Your task to perform on an android device: turn on wifi Image 0: 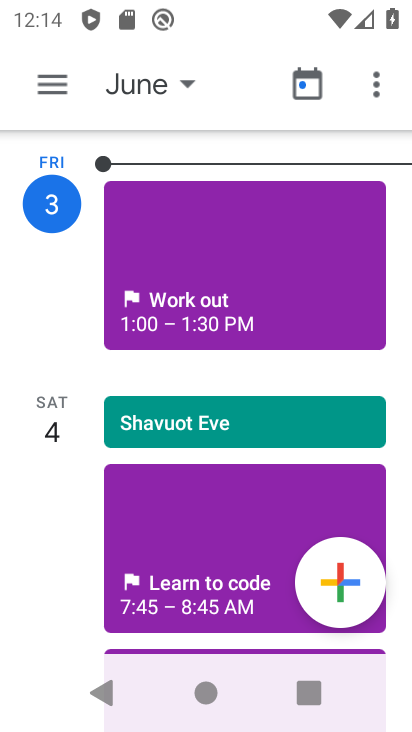
Step 0: press home button
Your task to perform on an android device: turn on wifi Image 1: 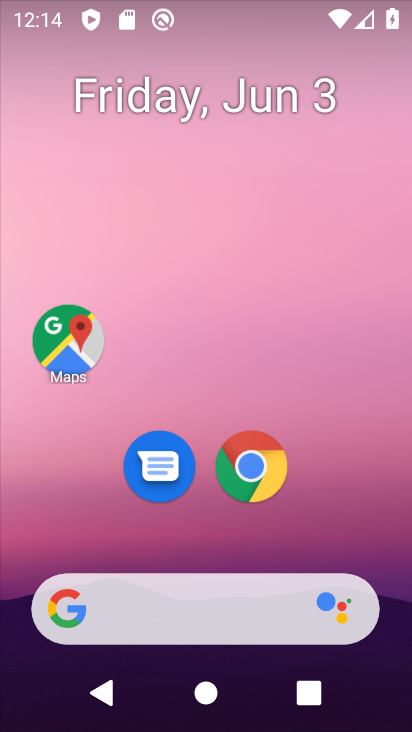
Step 1: task complete